Your task to perform on an android device: show emergency info Image 0: 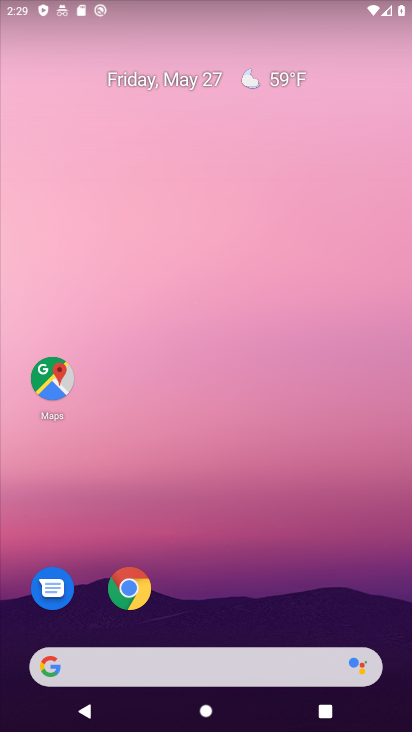
Step 0: drag from (217, 381) to (183, 137)
Your task to perform on an android device: show emergency info Image 1: 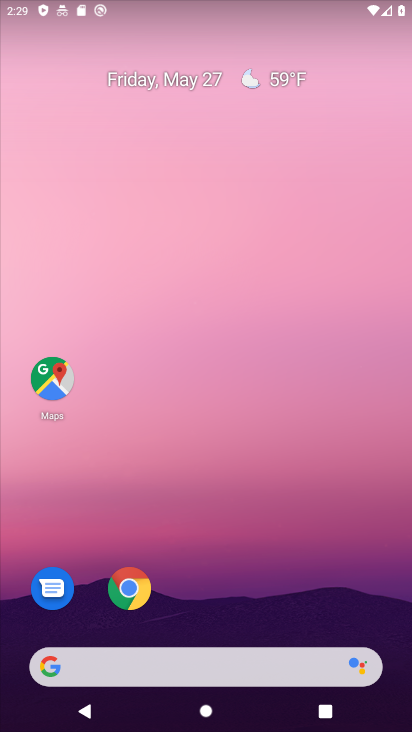
Step 1: drag from (283, 636) to (221, 162)
Your task to perform on an android device: show emergency info Image 2: 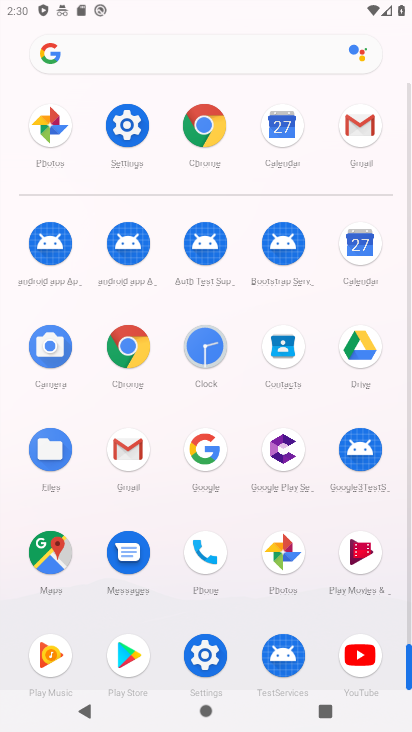
Step 2: click (123, 122)
Your task to perform on an android device: show emergency info Image 3: 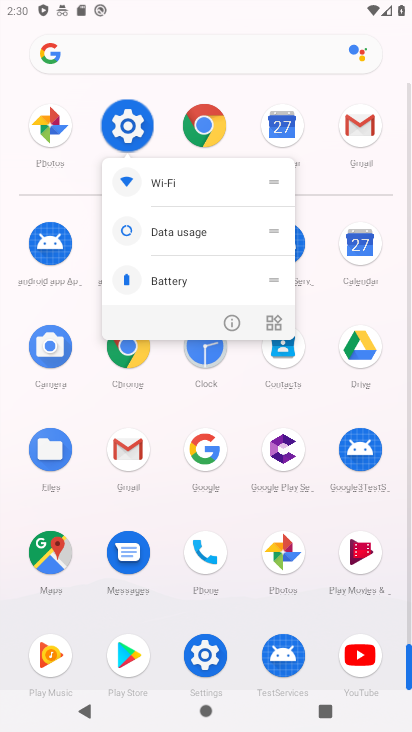
Step 3: click (123, 126)
Your task to perform on an android device: show emergency info Image 4: 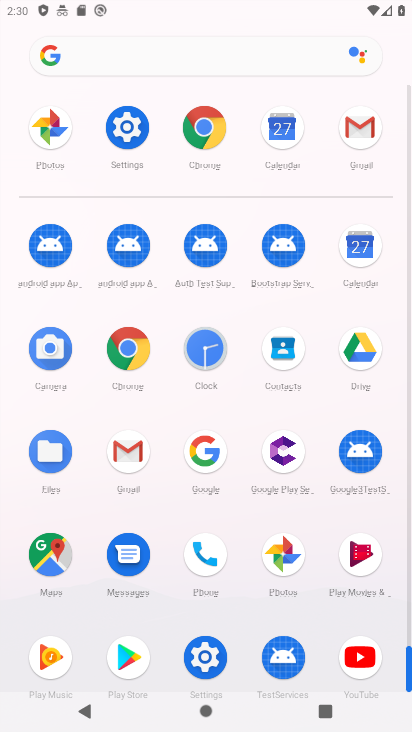
Step 4: click (126, 135)
Your task to perform on an android device: show emergency info Image 5: 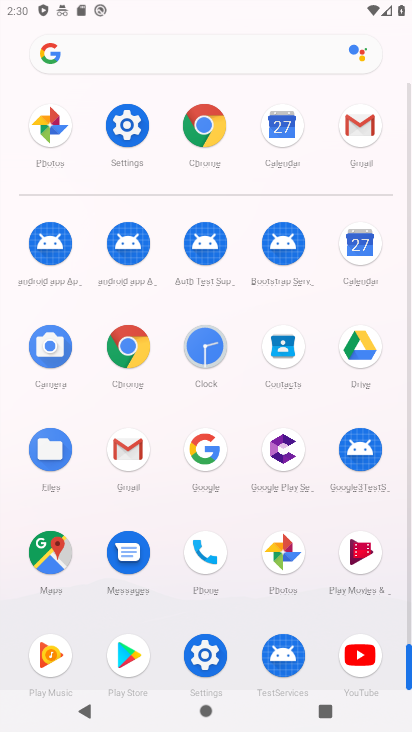
Step 5: click (127, 135)
Your task to perform on an android device: show emergency info Image 6: 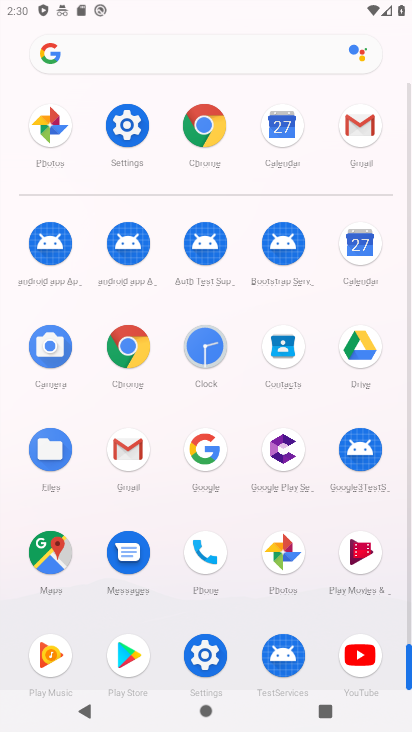
Step 6: click (127, 135)
Your task to perform on an android device: show emergency info Image 7: 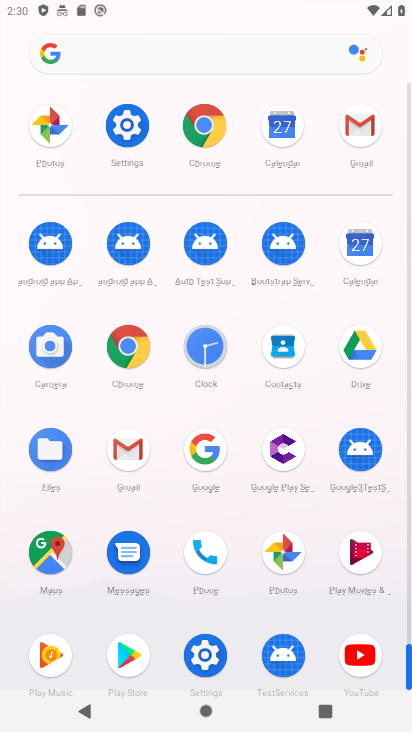
Step 7: click (128, 135)
Your task to perform on an android device: show emergency info Image 8: 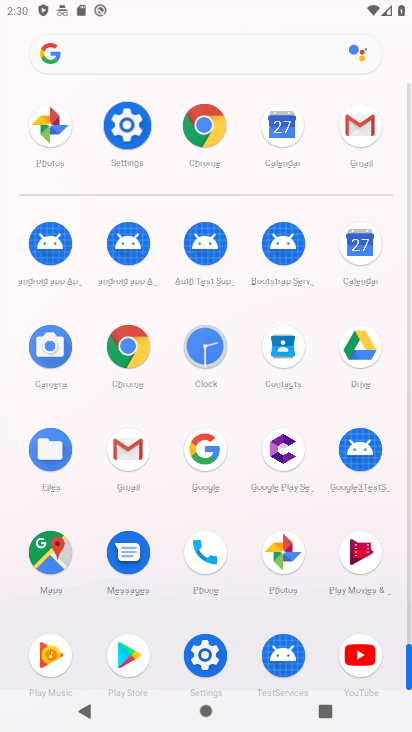
Step 8: click (129, 131)
Your task to perform on an android device: show emergency info Image 9: 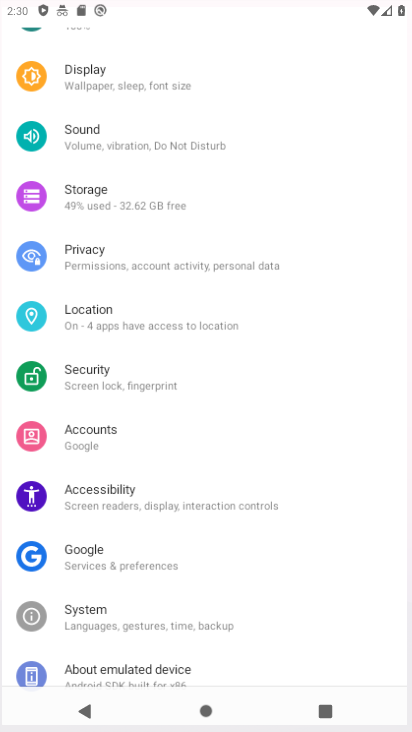
Step 9: click (129, 131)
Your task to perform on an android device: show emergency info Image 10: 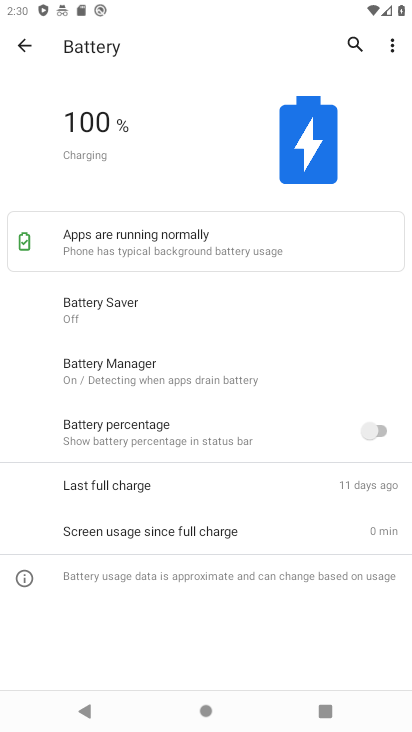
Step 10: click (20, 43)
Your task to perform on an android device: show emergency info Image 11: 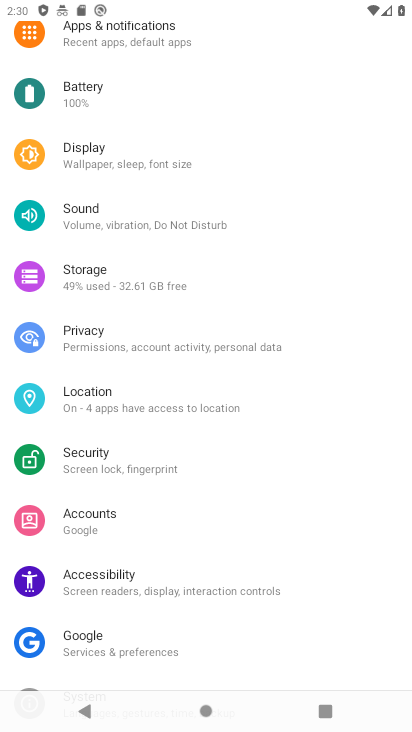
Step 11: drag from (85, 123) to (126, 511)
Your task to perform on an android device: show emergency info Image 12: 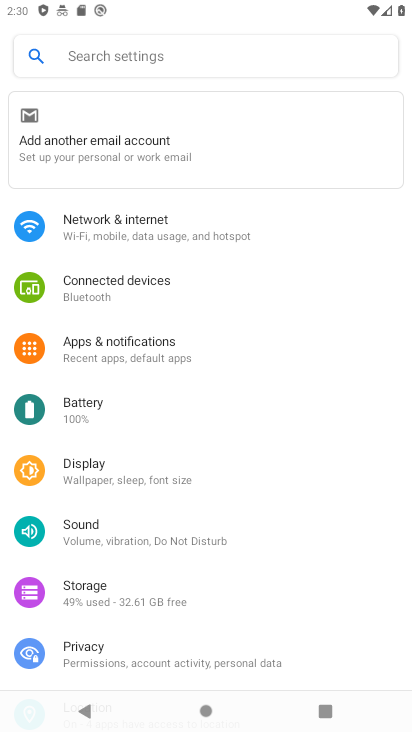
Step 12: drag from (167, 549) to (157, 166)
Your task to perform on an android device: show emergency info Image 13: 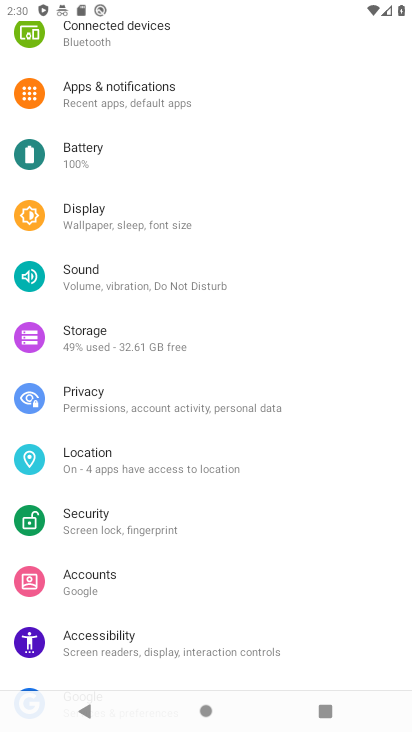
Step 13: drag from (157, 243) to (172, 90)
Your task to perform on an android device: show emergency info Image 14: 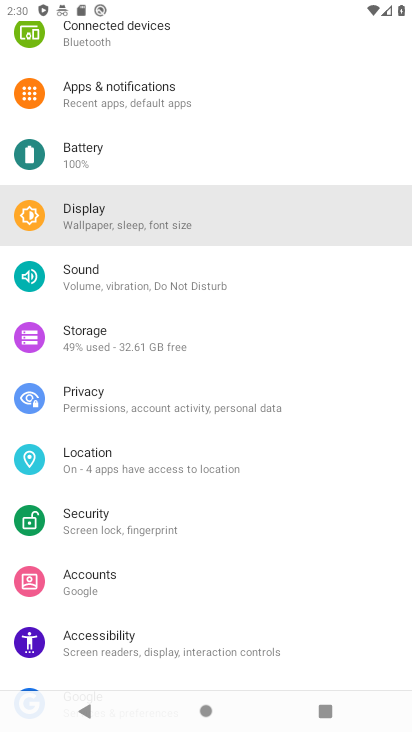
Step 14: drag from (176, 248) to (197, 92)
Your task to perform on an android device: show emergency info Image 15: 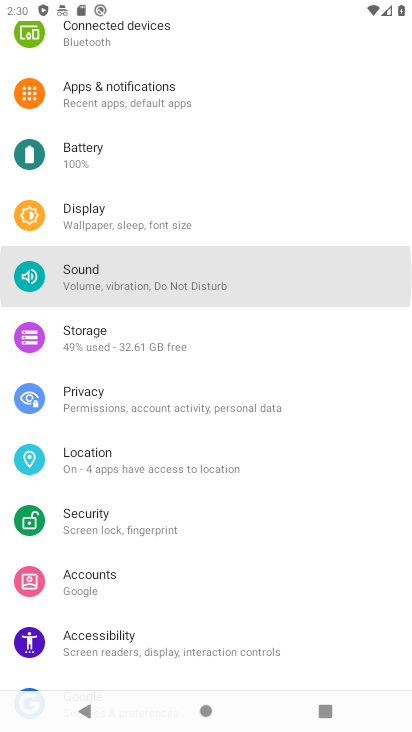
Step 15: drag from (158, 404) to (156, 42)
Your task to perform on an android device: show emergency info Image 16: 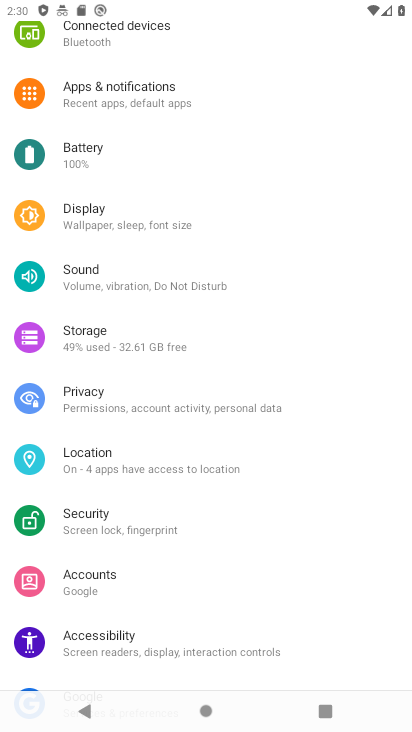
Step 16: drag from (186, 349) to (186, 180)
Your task to perform on an android device: show emergency info Image 17: 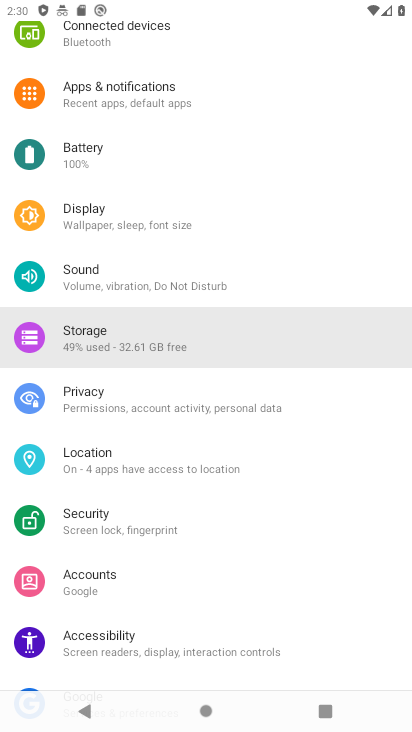
Step 17: drag from (113, 308) to (108, 219)
Your task to perform on an android device: show emergency info Image 18: 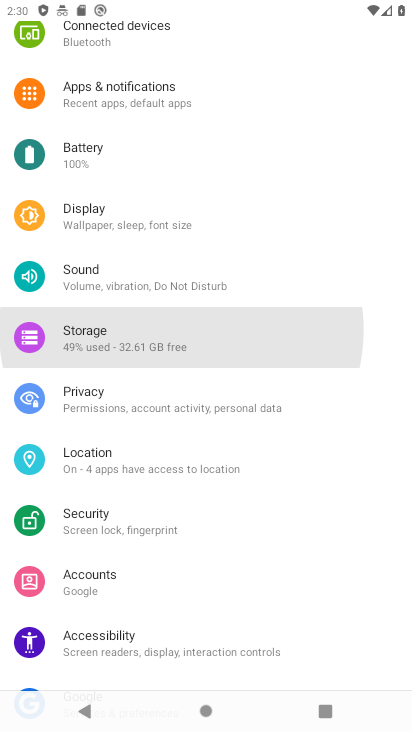
Step 18: drag from (164, 240) to (164, 138)
Your task to perform on an android device: show emergency info Image 19: 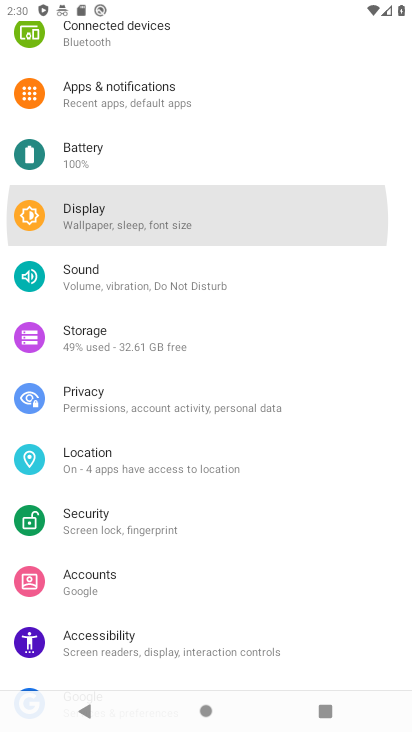
Step 19: click (206, 213)
Your task to perform on an android device: show emergency info Image 20: 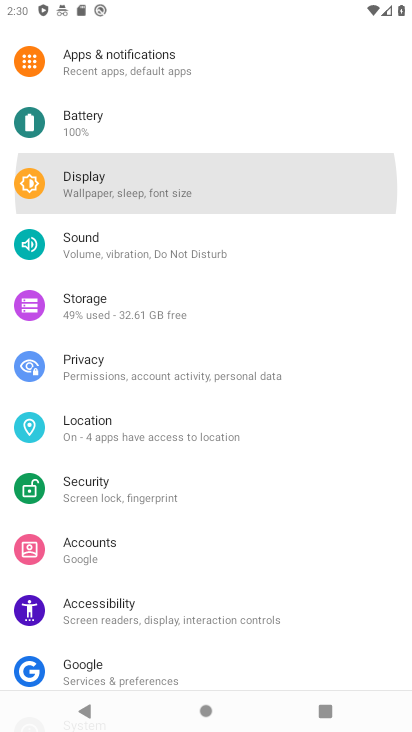
Step 20: click (201, 261)
Your task to perform on an android device: show emergency info Image 21: 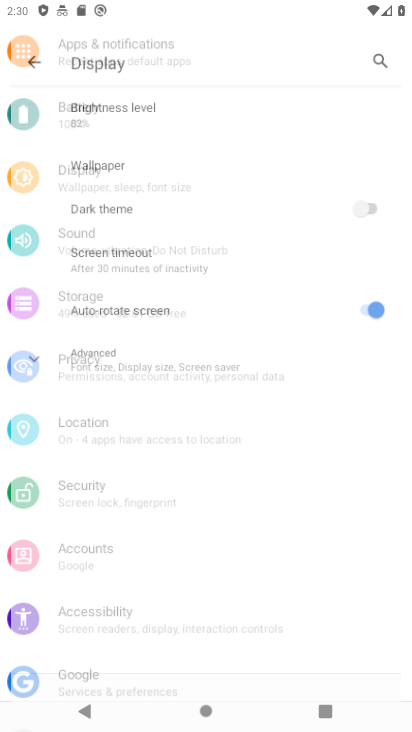
Step 21: click (157, 255)
Your task to perform on an android device: show emergency info Image 22: 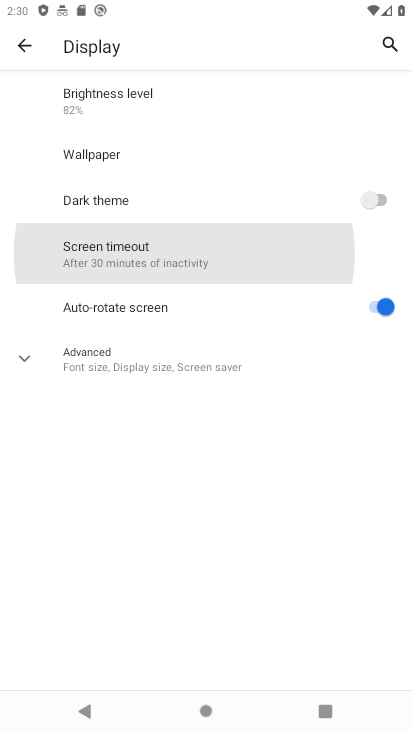
Step 22: drag from (198, 349) to (207, 301)
Your task to perform on an android device: show emergency info Image 23: 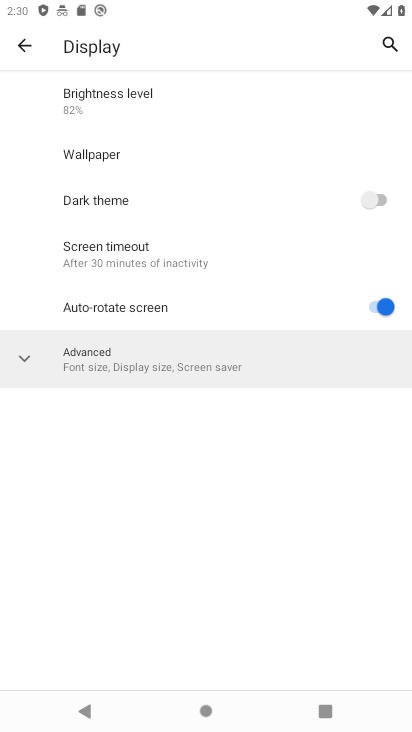
Step 23: click (185, 189)
Your task to perform on an android device: show emergency info Image 24: 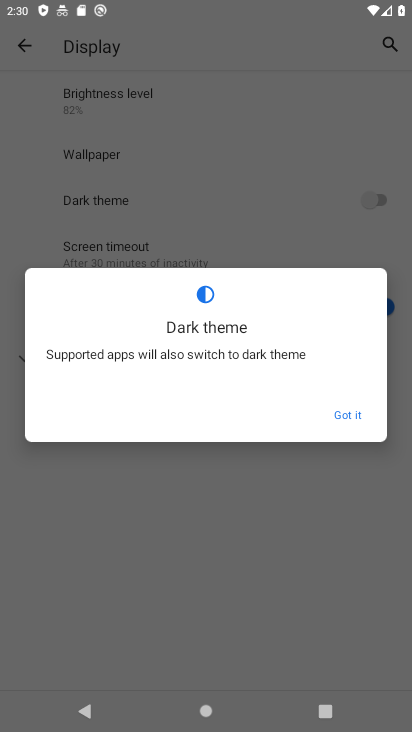
Step 24: click (20, 41)
Your task to perform on an android device: show emergency info Image 25: 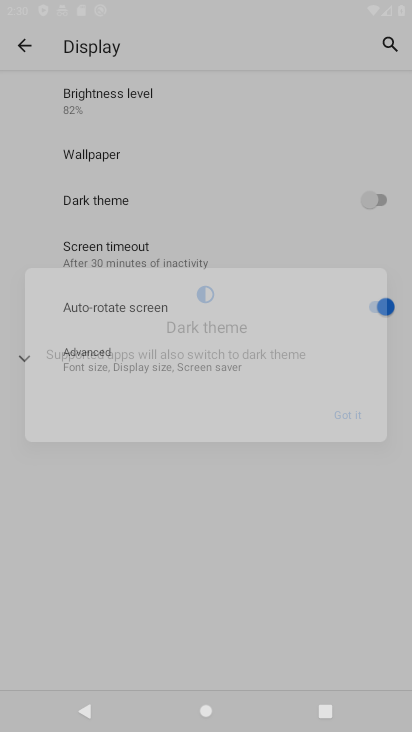
Step 25: click (347, 411)
Your task to perform on an android device: show emergency info Image 26: 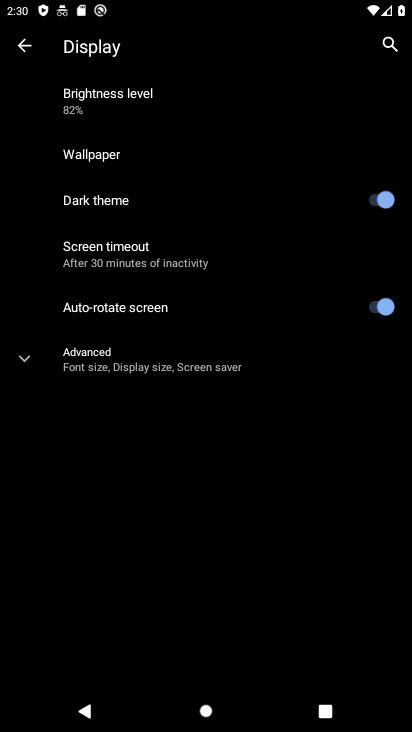
Step 26: click (26, 44)
Your task to perform on an android device: show emergency info Image 27: 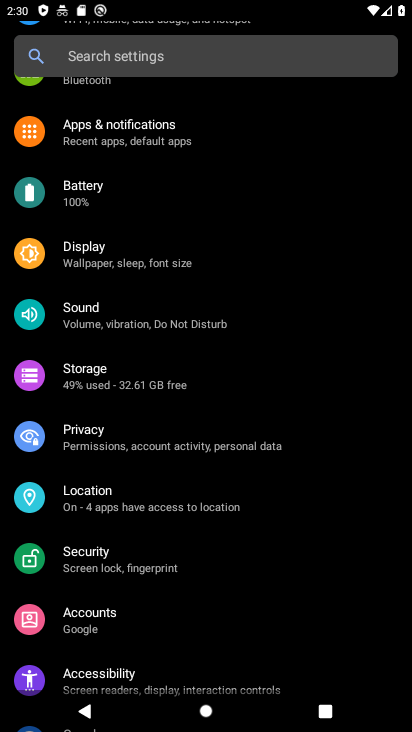
Step 27: click (161, 217)
Your task to perform on an android device: show emergency info Image 28: 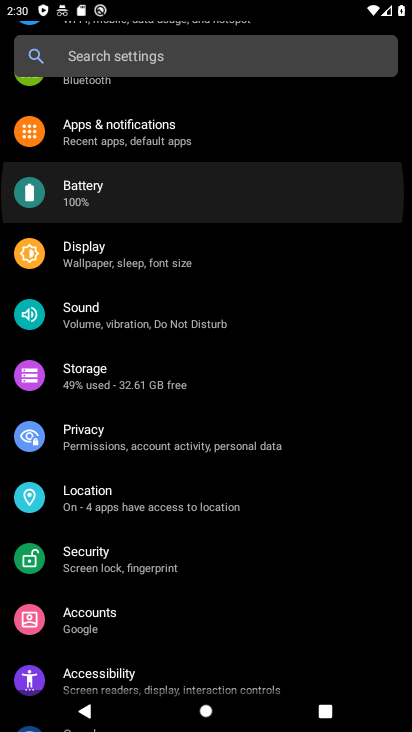
Step 28: drag from (205, 335) to (213, 170)
Your task to perform on an android device: show emergency info Image 29: 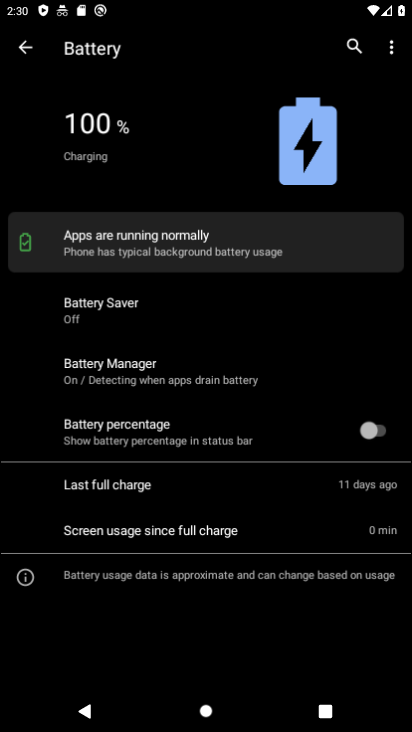
Step 29: drag from (201, 226) to (179, 23)
Your task to perform on an android device: show emergency info Image 30: 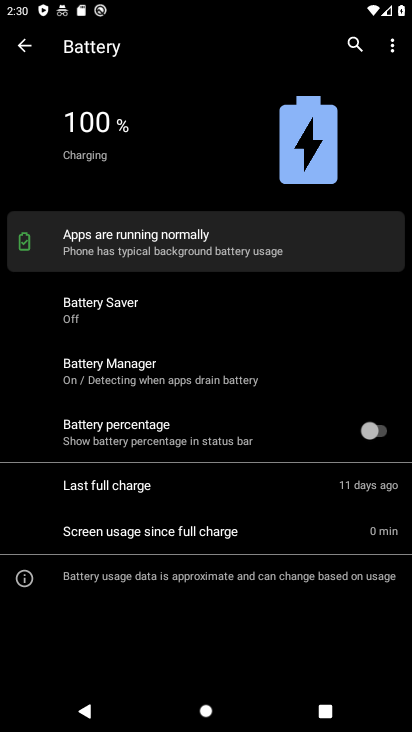
Step 30: drag from (128, 549) to (128, 143)
Your task to perform on an android device: show emergency info Image 31: 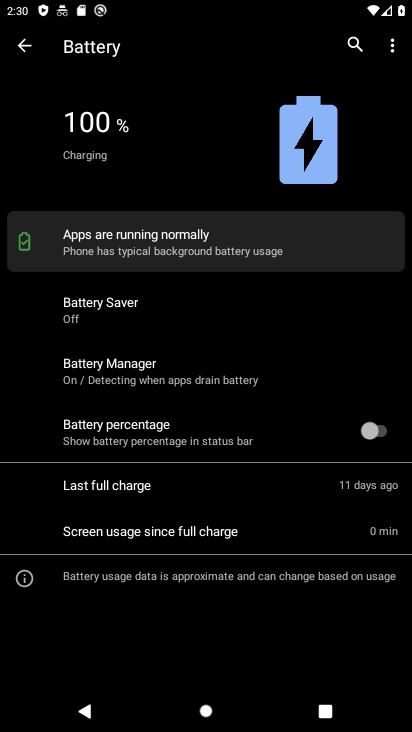
Step 31: click (22, 48)
Your task to perform on an android device: show emergency info Image 32: 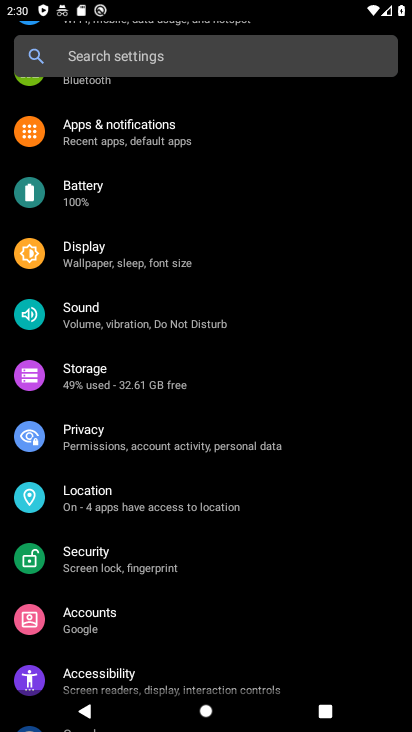
Step 32: drag from (143, 619) to (150, 244)
Your task to perform on an android device: show emergency info Image 33: 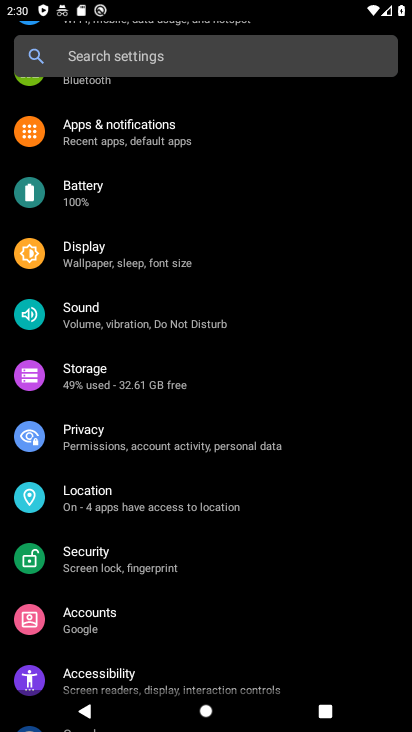
Step 33: drag from (211, 492) to (198, 136)
Your task to perform on an android device: show emergency info Image 34: 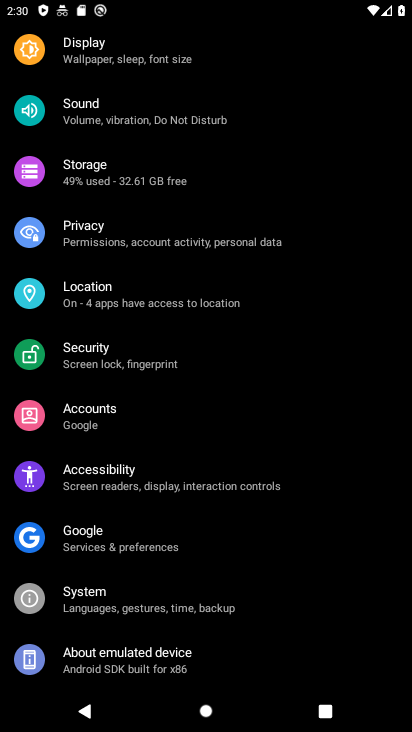
Step 34: click (123, 668)
Your task to perform on an android device: show emergency info Image 35: 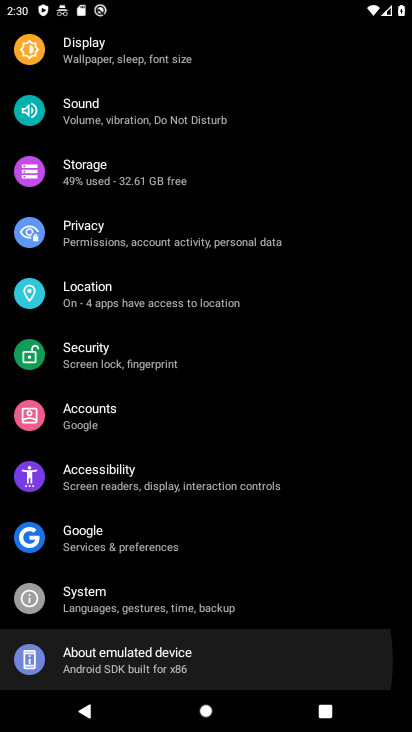
Step 35: click (123, 668)
Your task to perform on an android device: show emergency info Image 36: 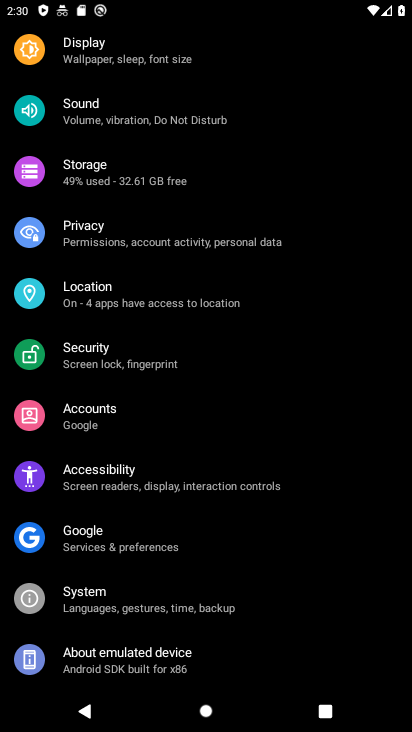
Step 36: click (123, 668)
Your task to perform on an android device: show emergency info Image 37: 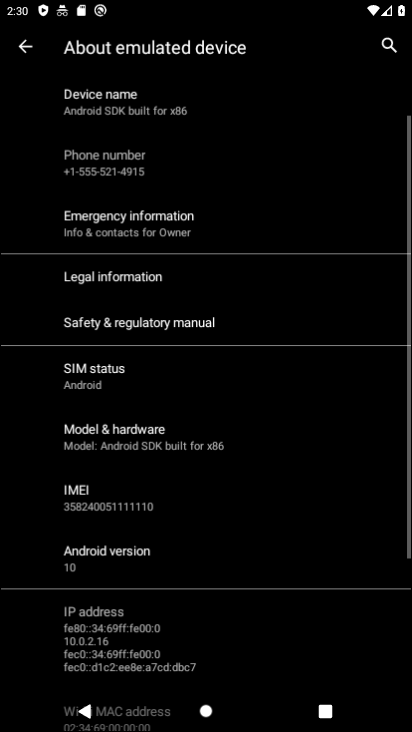
Step 37: click (123, 668)
Your task to perform on an android device: show emergency info Image 38: 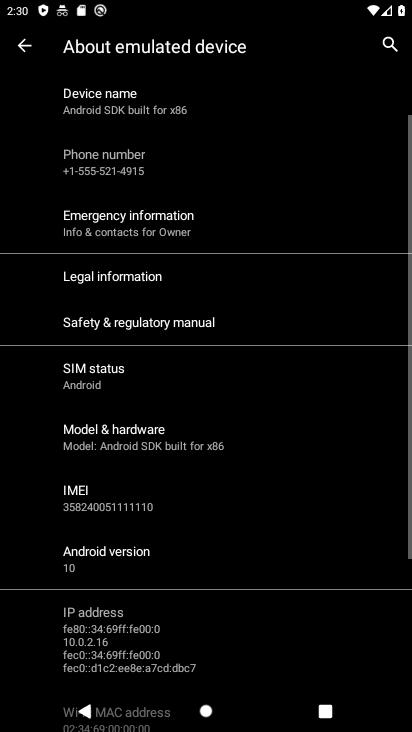
Step 38: click (123, 668)
Your task to perform on an android device: show emergency info Image 39: 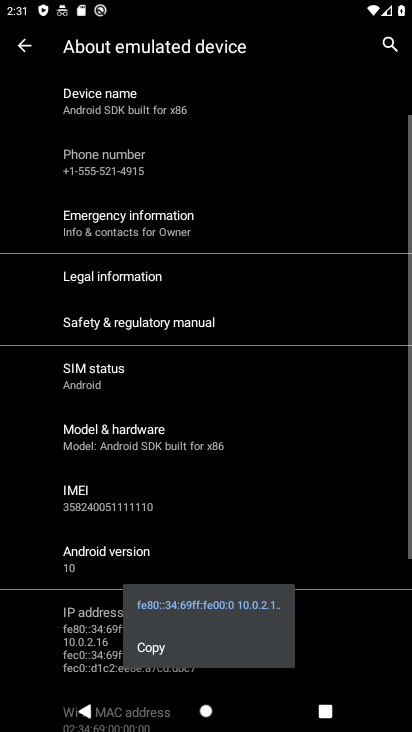
Step 39: drag from (143, 363) to (86, 110)
Your task to perform on an android device: show emergency info Image 40: 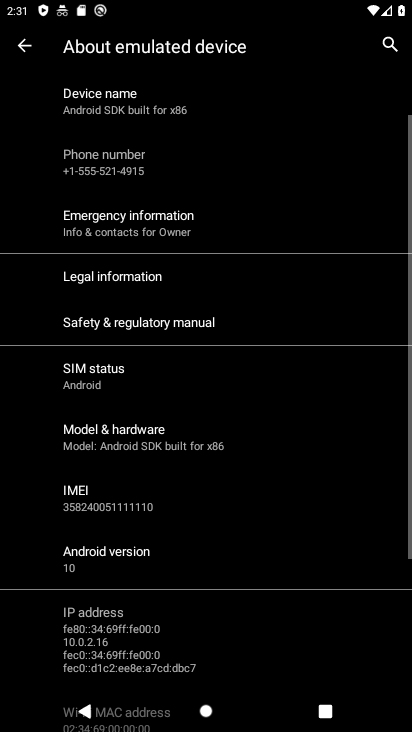
Step 40: drag from (89, 128) to (117, 79)
Your task to perform on an android device: show emergency info Image 41: 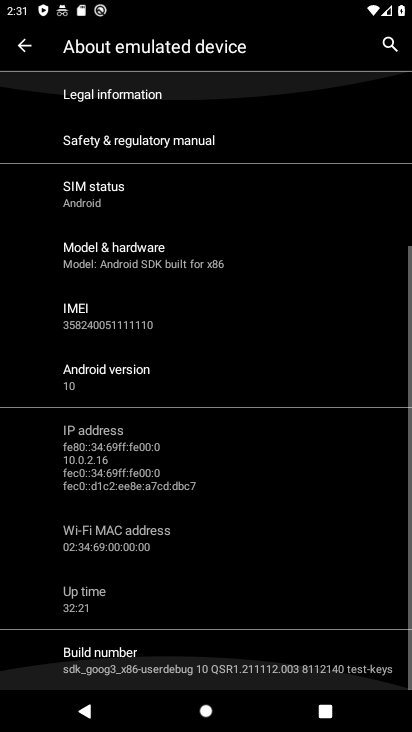
Step 41: drag from (102, 409) to (85, 194)
Your task to perform on an android device: show emergency info Image 42: 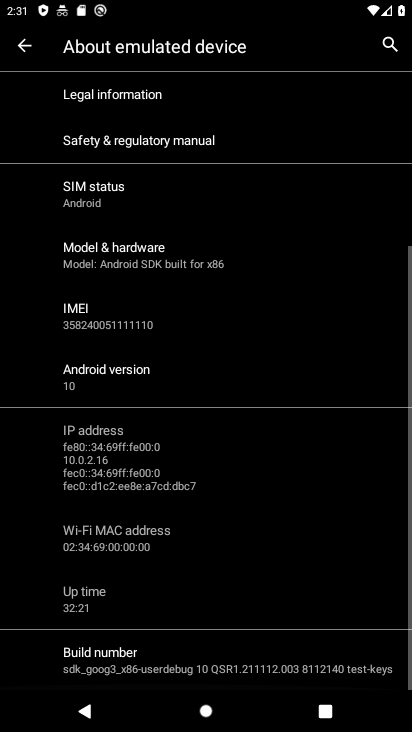
Step 42: drag from (78, 466) to (78, 260)
Your task to perform on an android device: show emergency info Image 43: 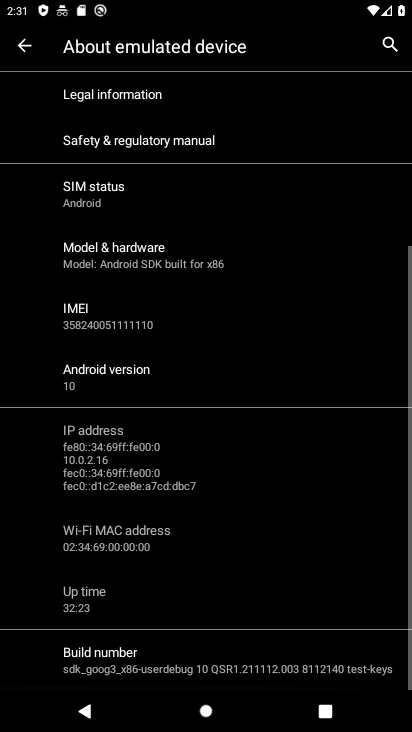
Step 43: drag from (95, 500) to (114, 123)
Your task to perform on an android device: show emergency info Image 44: 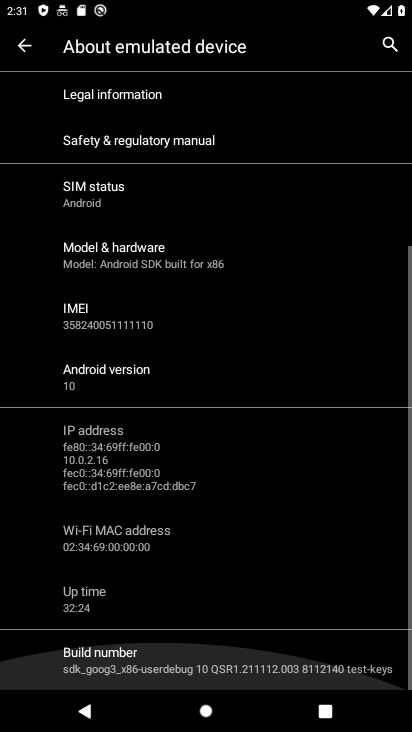
Step 44: click (153, 163)
Your task to perform on an android device: show emergency info Image 45: 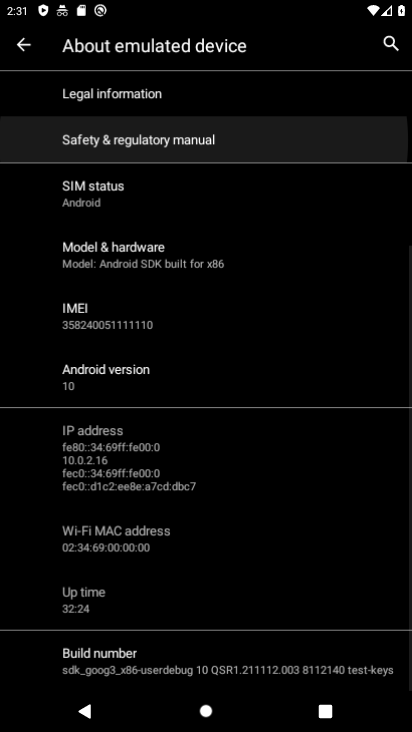
Step 45: task complete